Your task to perform on an android device: Open Google Maps and go to "Timeline" Image 0: 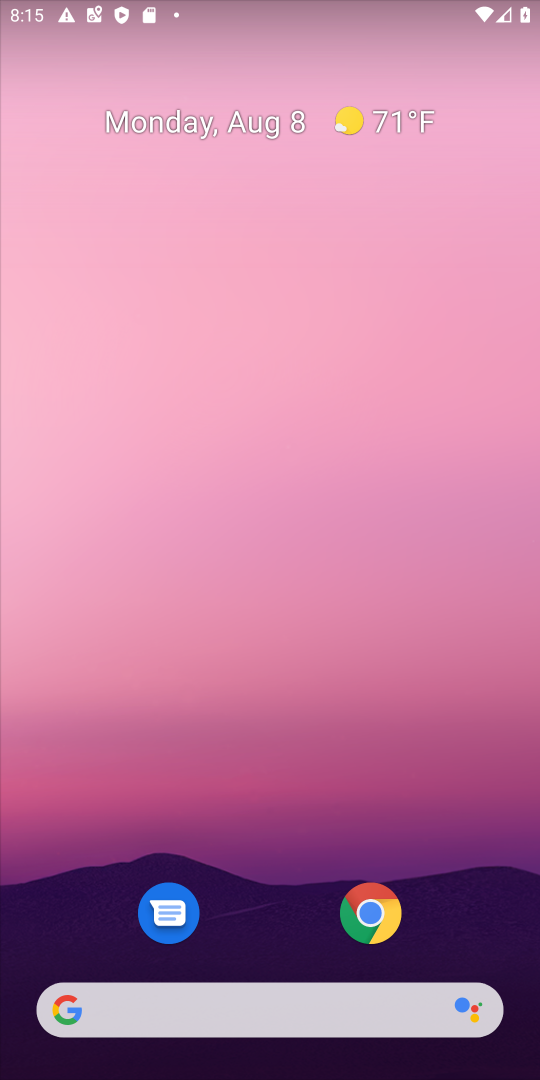
Step 0: drag from (272, 990) to (267, 57)
Your task to perform on an android device: Open Google Maps and go to "Timeline" Image 1: 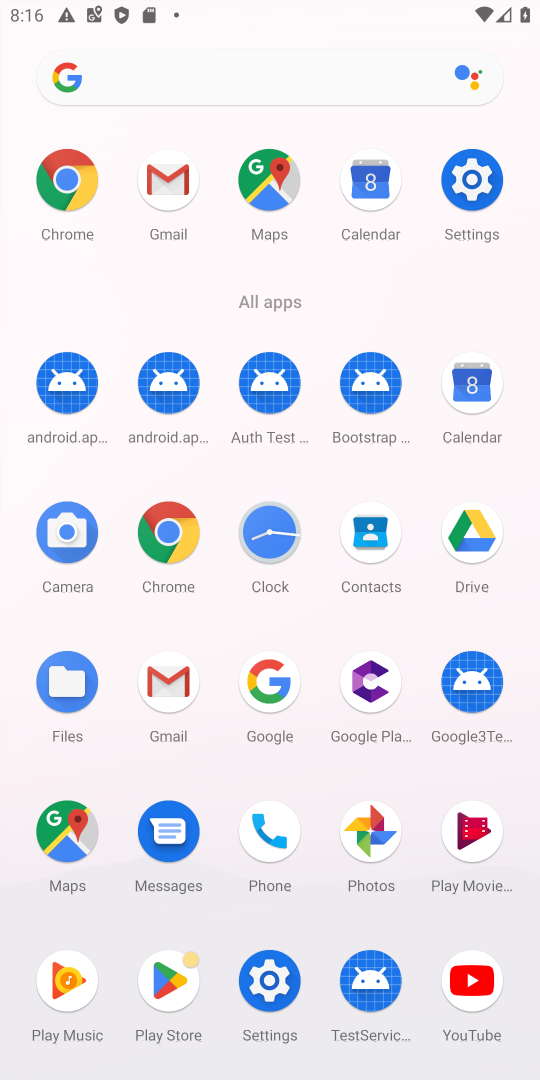
Step 1: click (68, 834)
Your task to perform on an android device: Open Google Maps and go to "Timeline" Image 2: 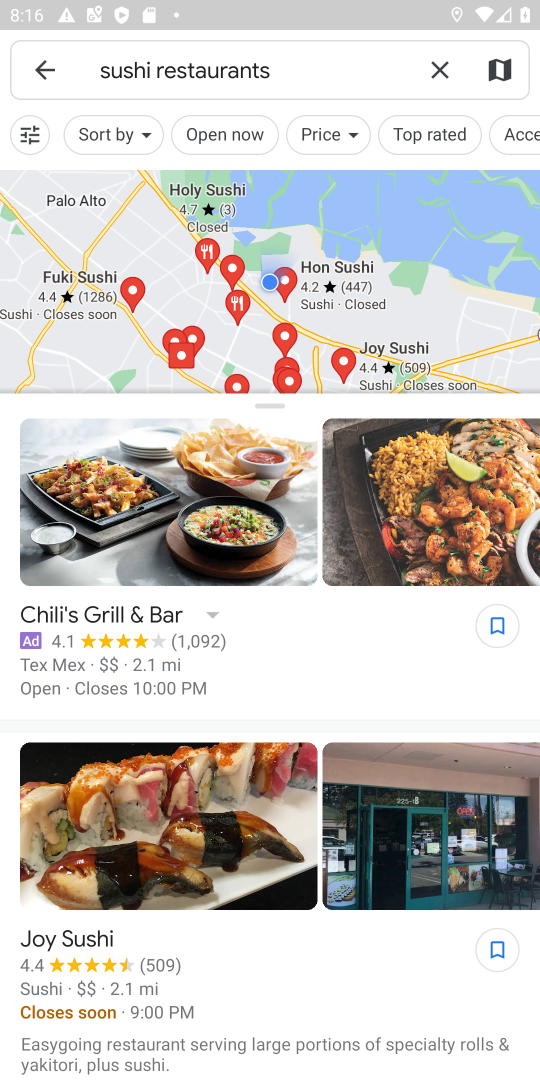
Step 2: click (442, 70)
Your task to perform on an android device: Open Google Maps and go to "Timeline" Image 3: 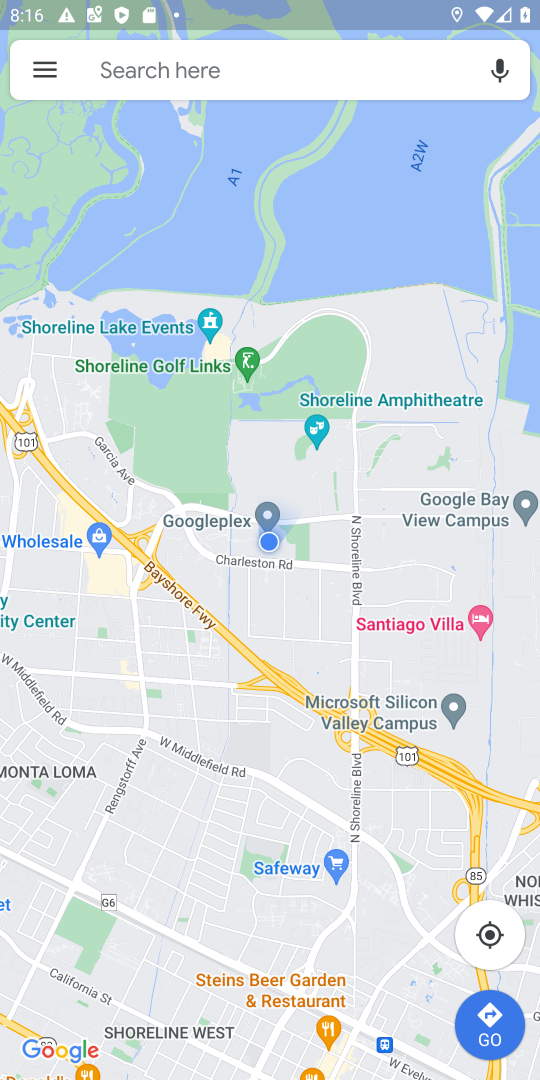
Step 3: click (45, 68)
Your task to perform on an android device: Open Google Maps and go to "Timeline" Image 4: 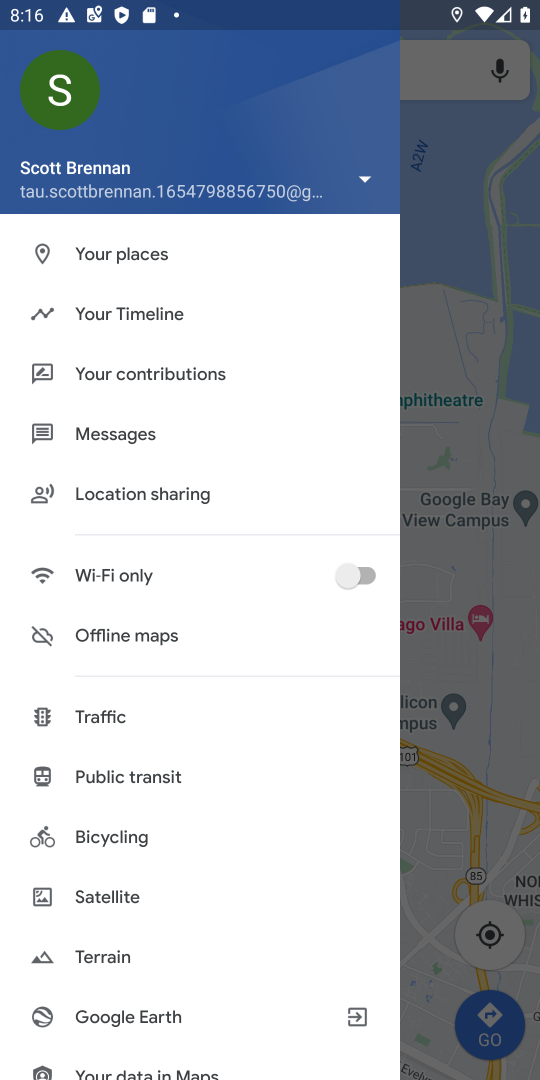
Step 4: click (130, 311)
Your task to perform on an android device: Open Google Maps and go to "Timeline" Image 5: 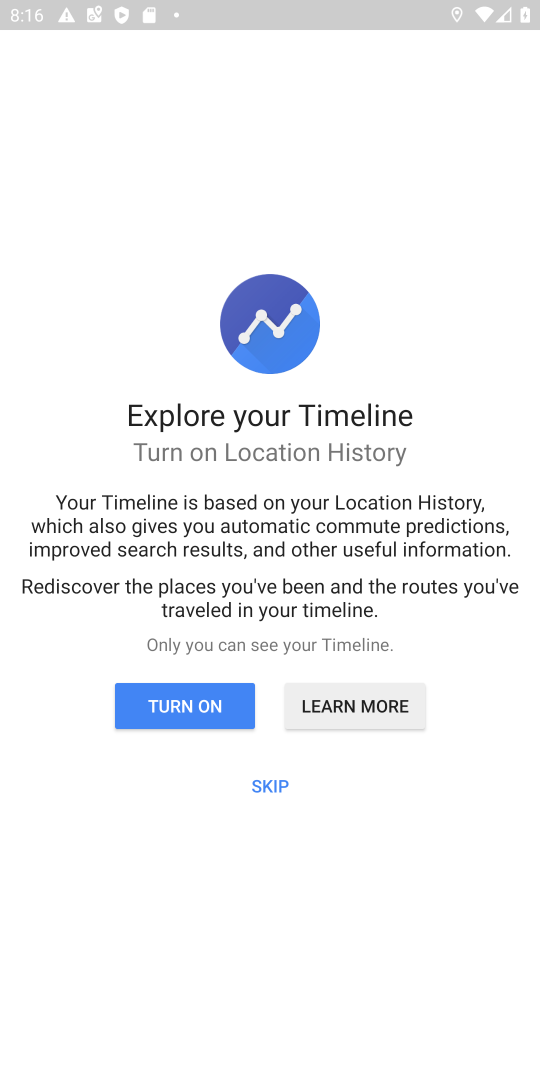
Step 5: click (268, 784)
Your task to perform on an android device: Open Google Maps and go to "Timeline" Image 6: 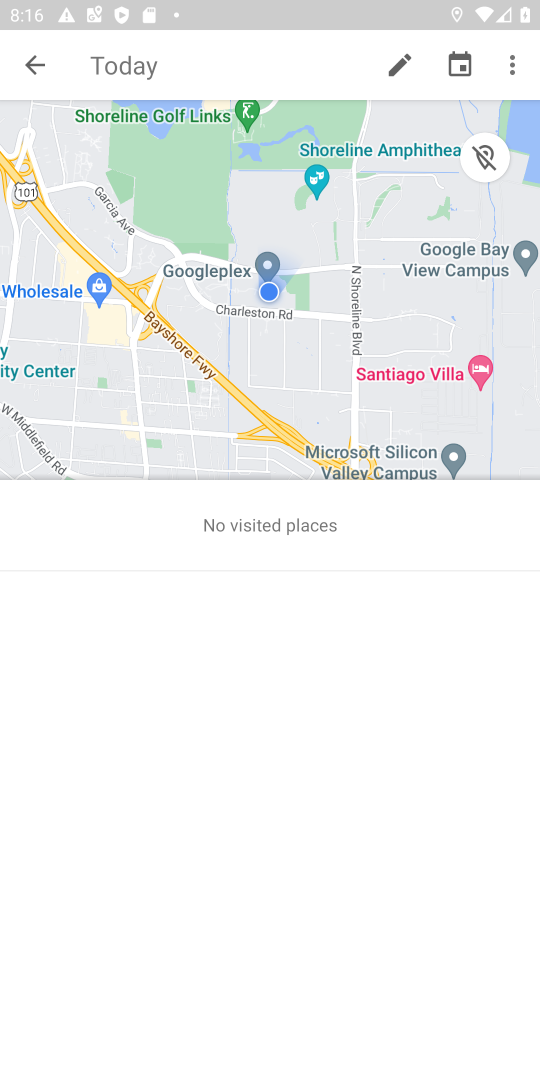
Step 6: task complete